Your task to perform on an android device: toggle sleep mode Image 0: 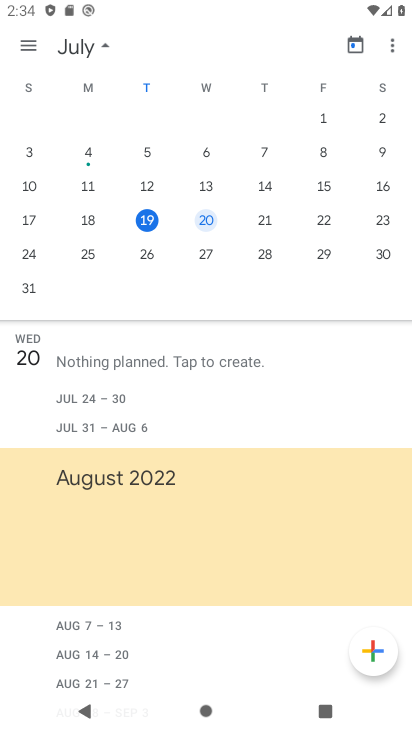
Step 0: press home button
Your task to perform on an android device: toggle sleep mode Image 1: 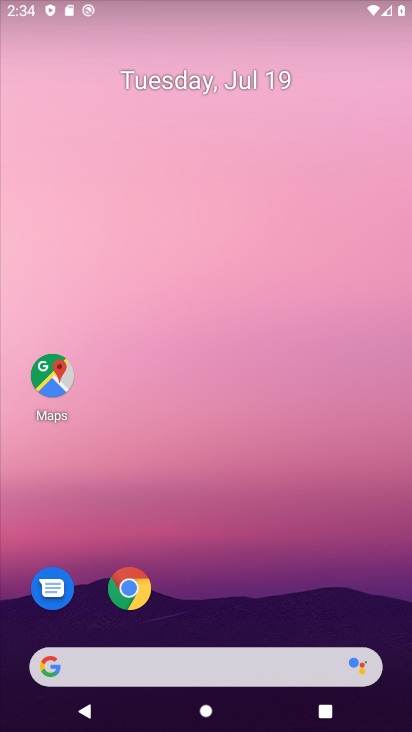
Step 1: drag from (218, 623) to (280, 69)
Your task to perform on an android device: toggle sleep mode Image 2: 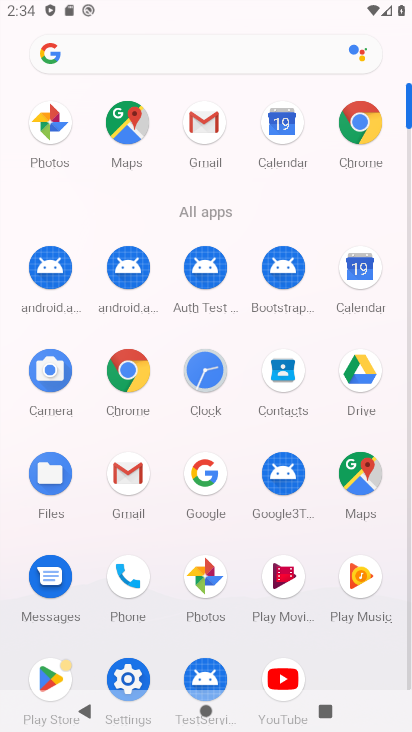
Step 2: click (131, 674)
Your task to perform on an android device: toggle sleep mode Image 3: 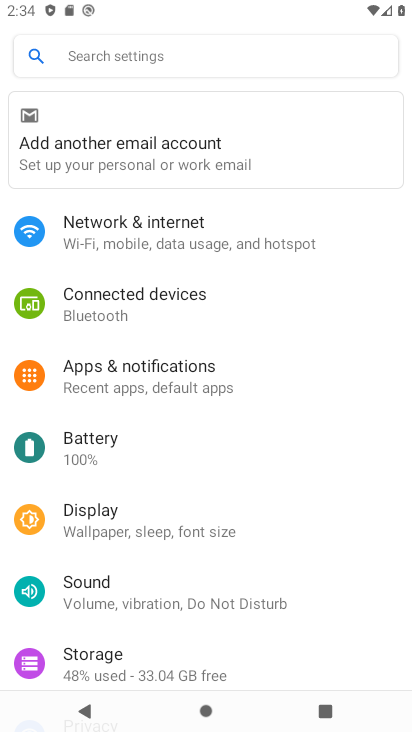
Step 3: click (125, 530)
Your task to perform on an android device: toggle sleep mode Image 4: 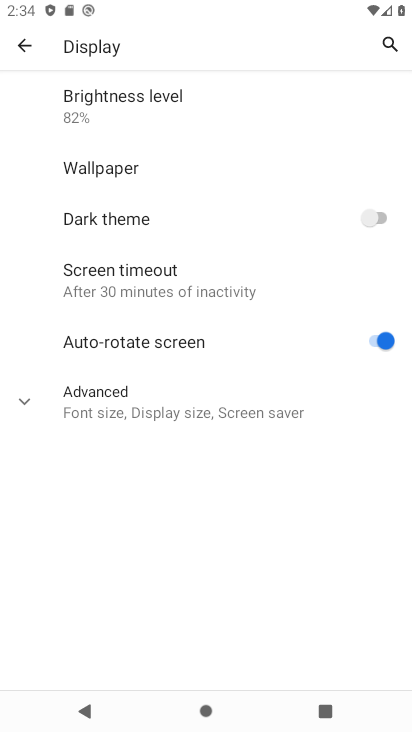
Step 4: click (129, 282)
Your task to perform on an android device: toggle sleep mode Image 5: 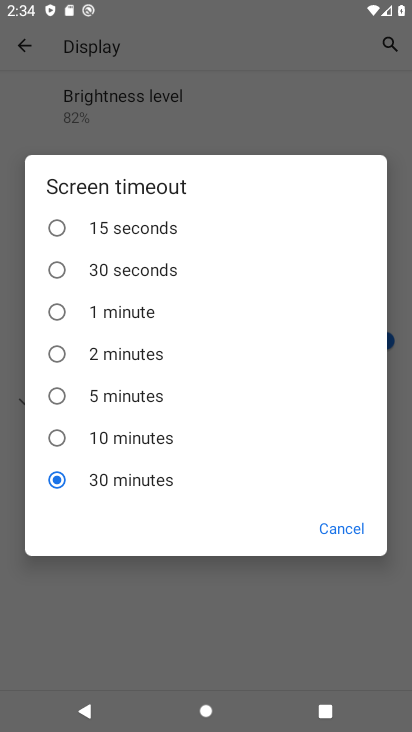
Step 5: click (59, 351)
Your task to perform on an android device: toggle sleep mode Image 6: 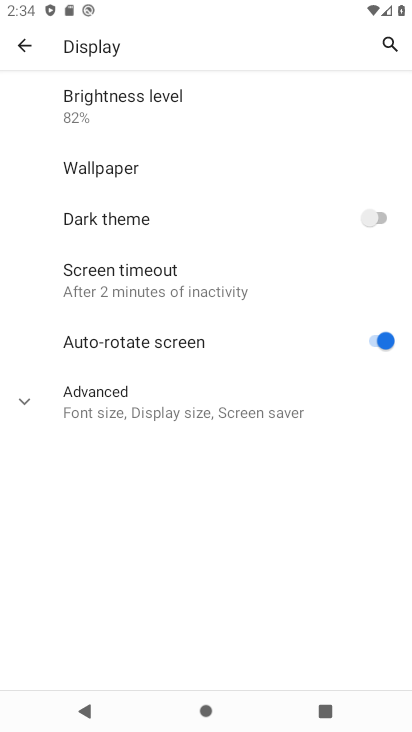
Step 6: task complete